Your task to perform on an android device: Open maps Image 0: 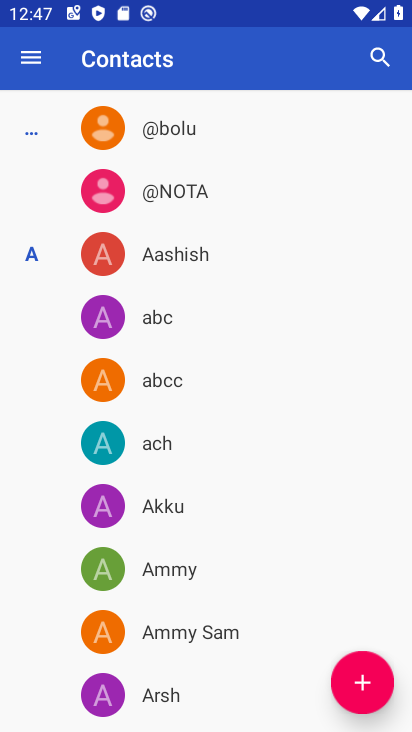
Step 0: press home button
Your task to perform on an android device: Open maps Image 1: 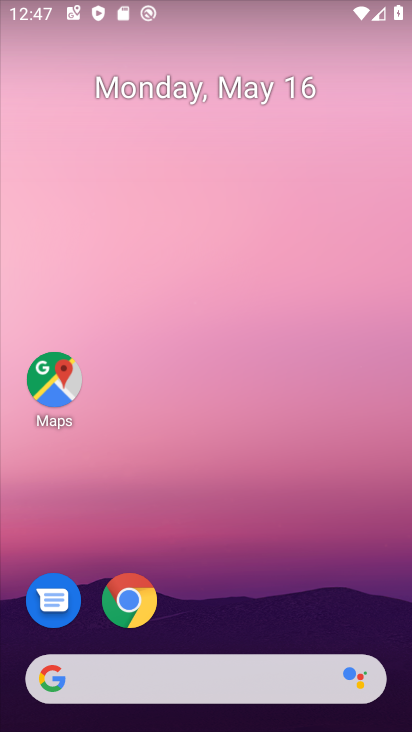
Step 1: drag from (224, 585) to (238, 476)
Your task to perform on an android device: Open maps Image 2: 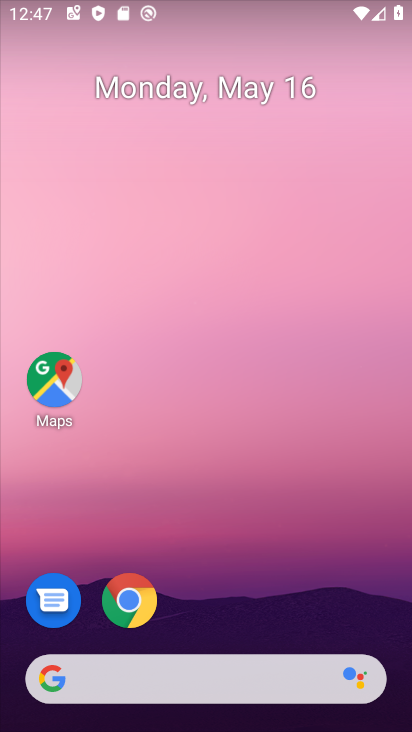
Step 2: click (65, 380)
Your task to perform on an android device: Open maps Image 3: 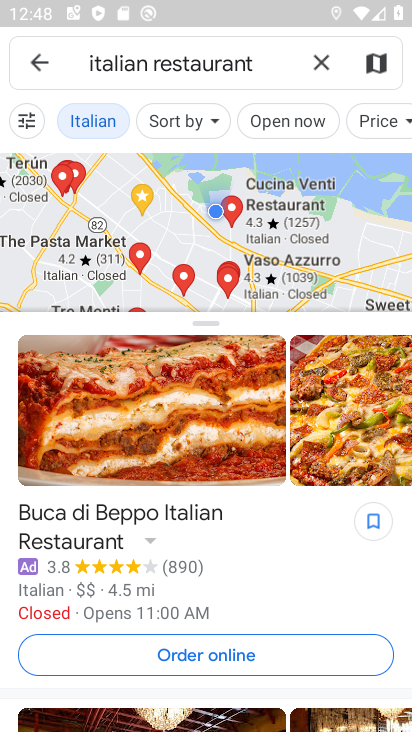
Step 3: task complete